Your task to perform on an android device: set the stopwatch Image 0: 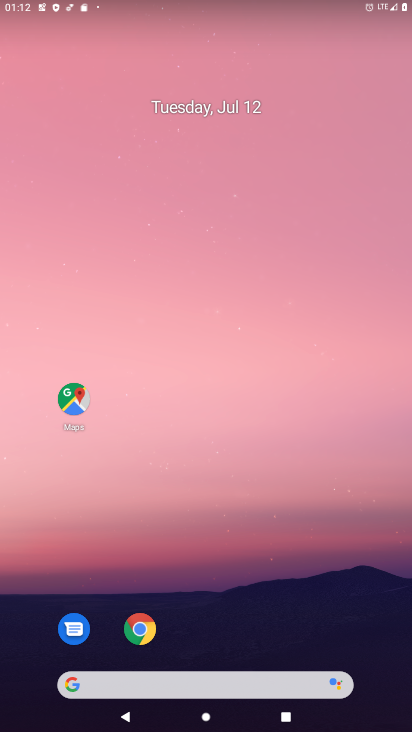
Step 0: drag from (50, 640) to (278, 98)
Your task to perform on an android device: set the stopwatch Image 1: 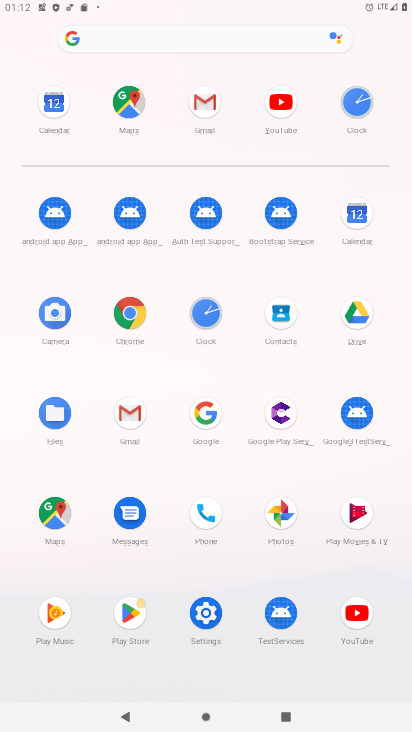
Step 1: click (196, 315)
Your task to perform on an android device: set the stopwatch Image 2: 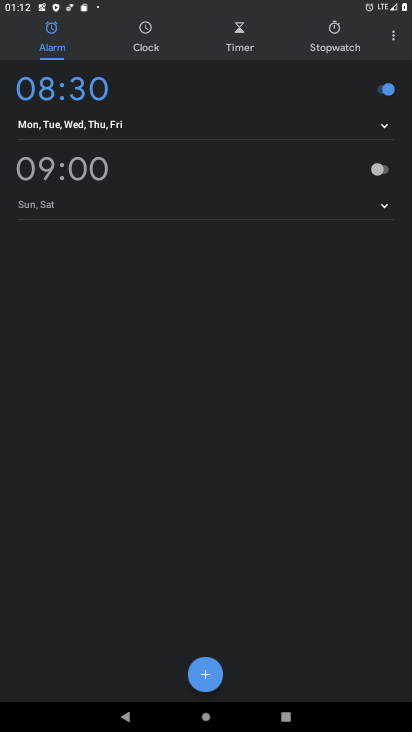
Step 2: click (323, 42)
Your task to perform on an android device: set the stopwatch Image 3: 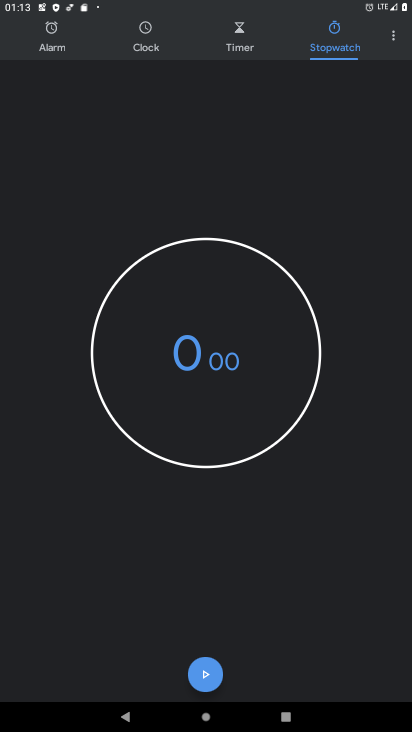
Step 3: click (208, 372)
Your task to perform on an android device: set the stopwatch Image 4: 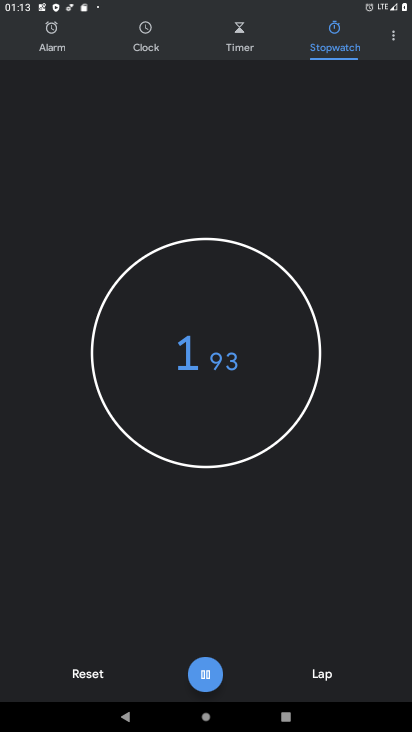
Step 4: click (199, 688)
Your task to perform on an android device: set the stopwatch Image 5: 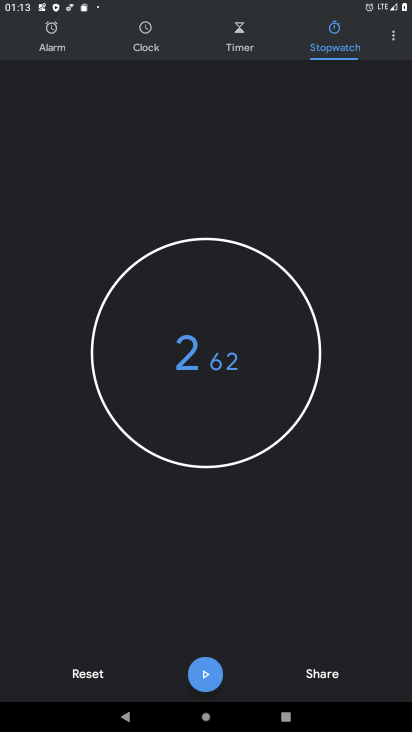
Step 5: click (199, 681)
Your task to perform on an android device: set the stopwatch Image 6: 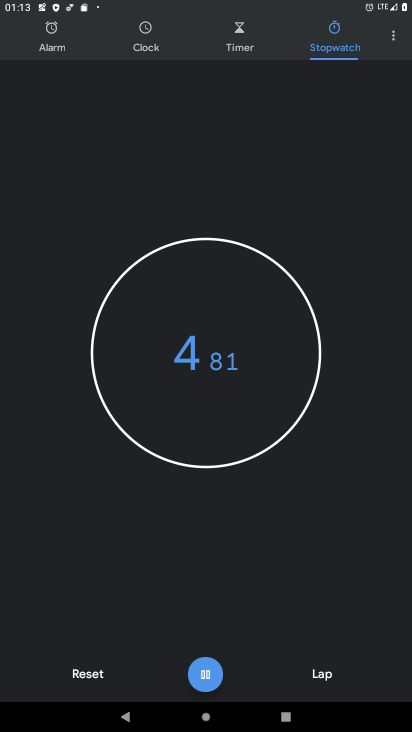
Step 6: click (207, 382)
Your task to perform on an android device: set the stopwatch Image 7: 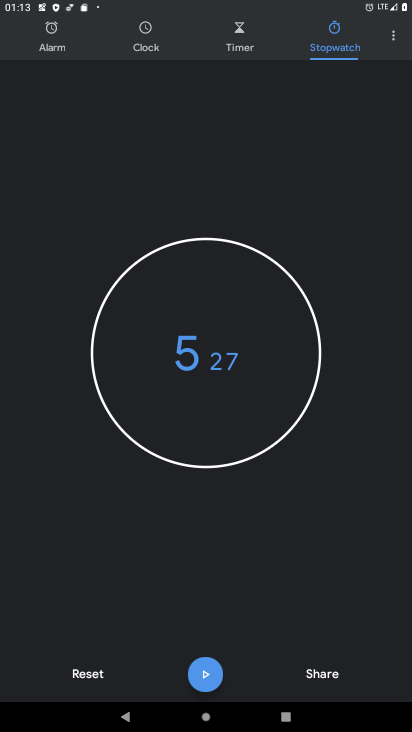
Step 7: task complete